Your task to perform on an android device: turn on notifications settings in the gmail app Image 0: 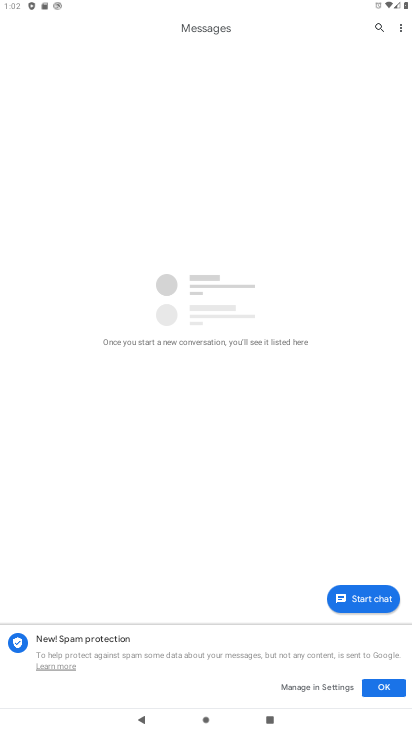
Step 0: press home button
Your task to perform on an android device: turn on notifications settings in the gmail app Image 1: 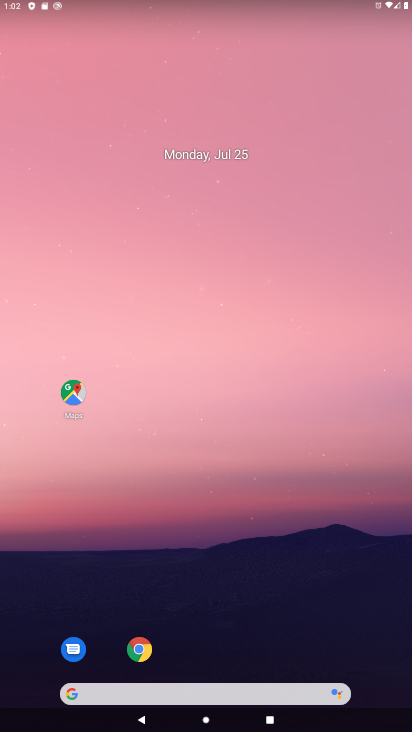
Step 1: drag from (264, 455) to (211, 41)
Your task to perform on an android device: turn on notifications settings in the gmail app Image 2: 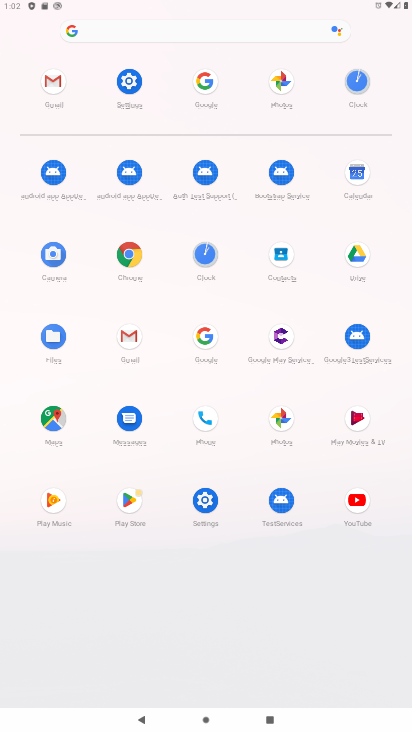
Step 2: click (48, 82)
Your task to perform on an android device: turn on notifications settings in the gmail app Image 3: 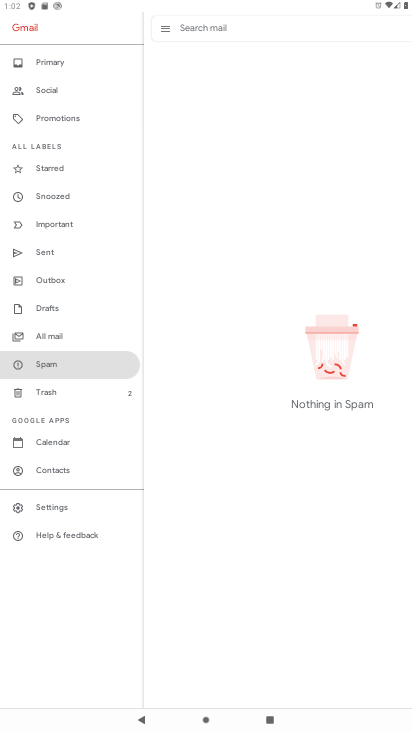
Step 3: click (57, 504)
Your task to perform on an android device: turn on notifications settings in the gmail app Image 4: 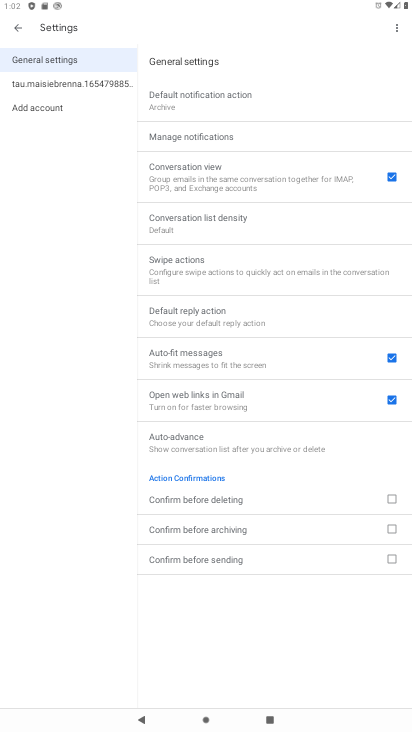
Step 4: click (63, 80)
Your task to perform on an android device: turn on notifications settings in the gmail app Image 5: 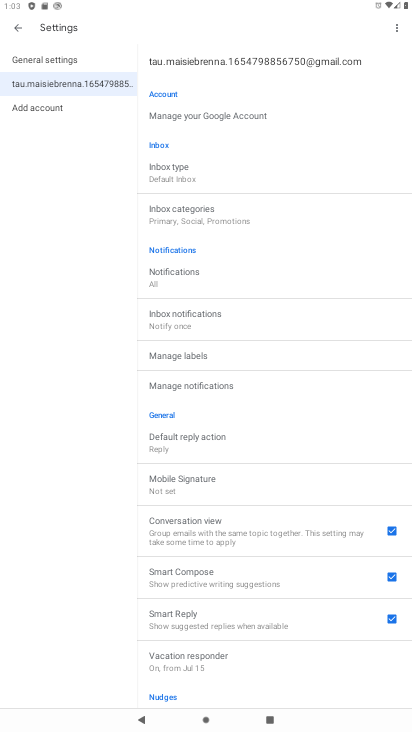
Step 5: click (218, 378)
Your task to perform on an android device: turn on notifications settings in the gmail app Image 6: 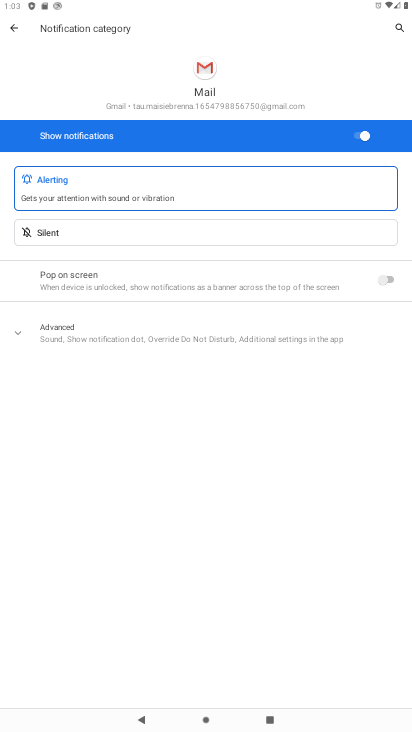
Step 6: task complete